Your task to perform on an android device: stop showing notifications on the lock screen Image 0: 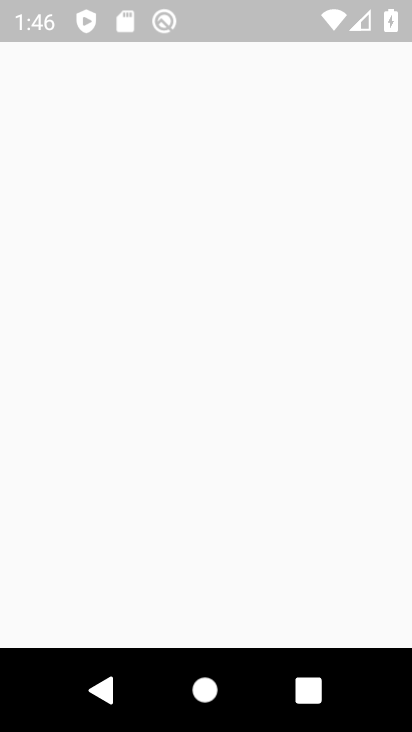
Step 0: press home button
Your task to perform on an android device: stop showing notifications on the lock screen Image 1: 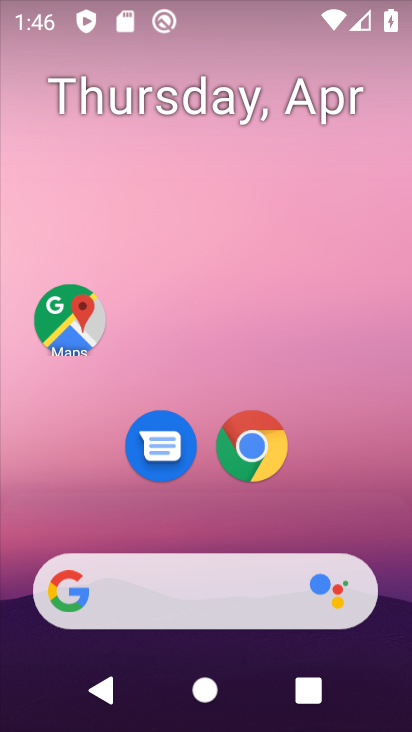
Step 1: drag from (211, 687) to (192, 214)
Your task to perform on an android device: stop showing notifications on the lock screen Image 2: 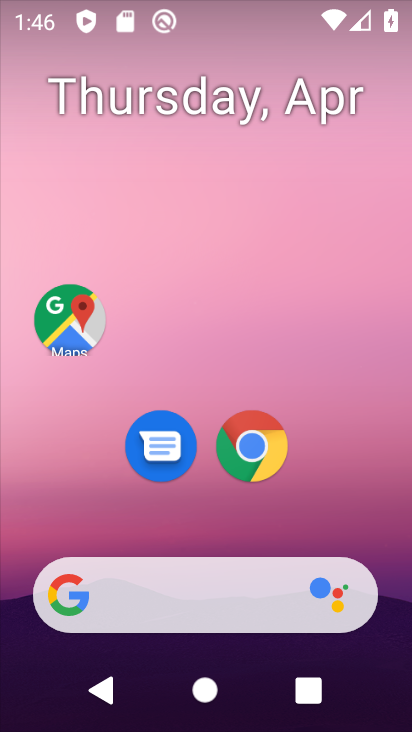
Step 2: drag from (208, 720) to (209, 133)
Your task to perform on an android device: stop showing notifications on the lock screen Image 3: 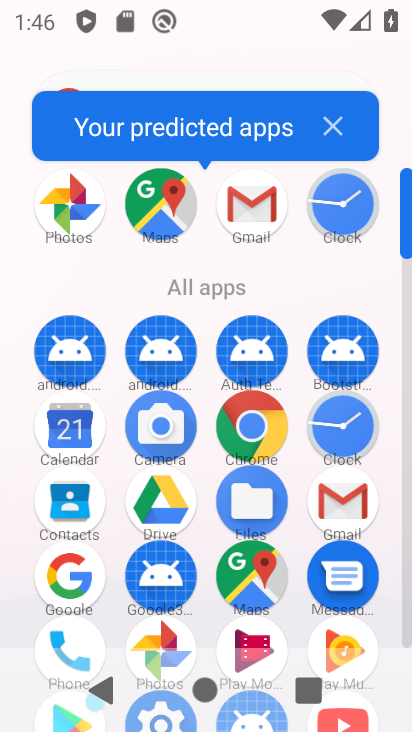
Step 3: drag from (206, 630) to (189, 255)
Your task to perform on an android device: stop showing notifications on the lock screen Image 4: 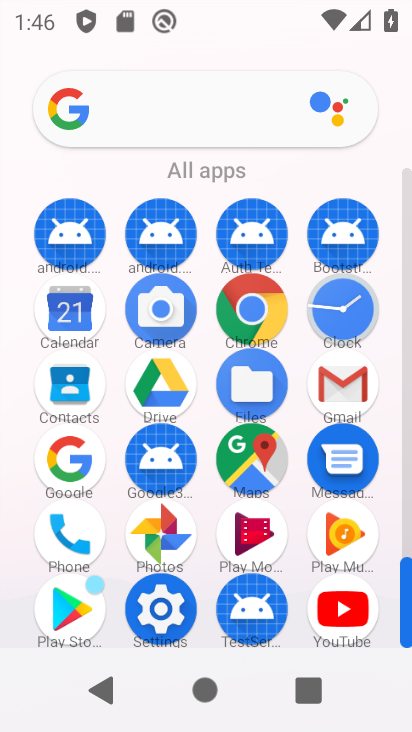
Step 4: click (162, 605)
Your task to perform on an android device: stop showing notifications on the lock screen Image 5: 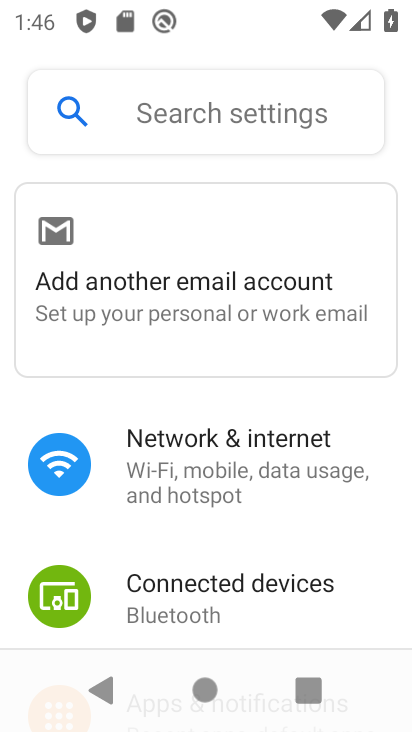
Step 5: drag from (229, 623) to (252, 263)
Your task to perform on an android device: stop showing notifications on the lock screen Image 6: 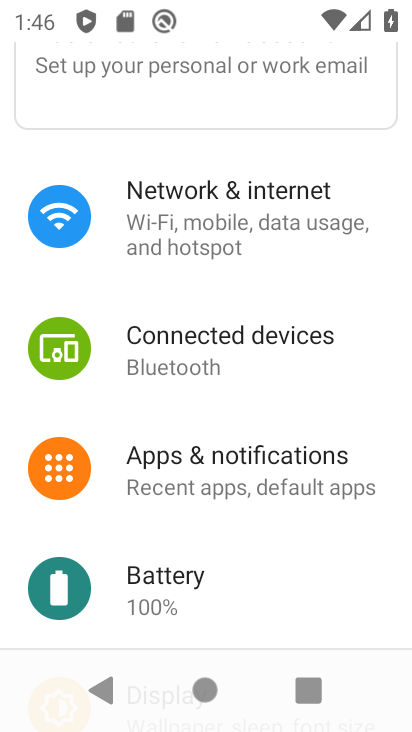
Step 6: click (226, 465)
Your task to perform on an android device: stop showing notifications on the lock screen Image 7: 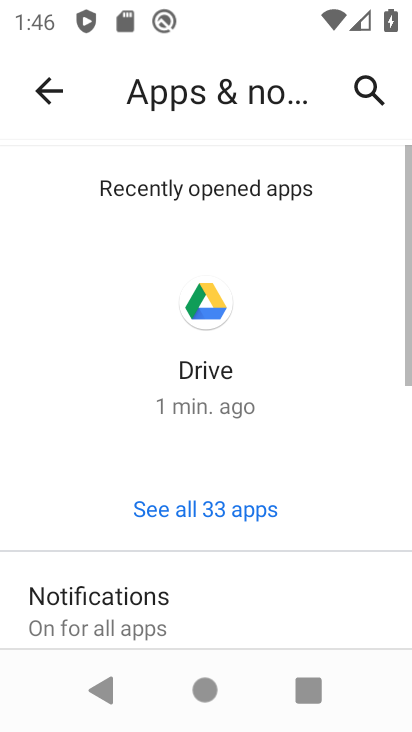
Step 7: drag from (232, 624) to (237, 253)
Your task to perform on an android device: stop showing notifications on the lock screen Image 8: 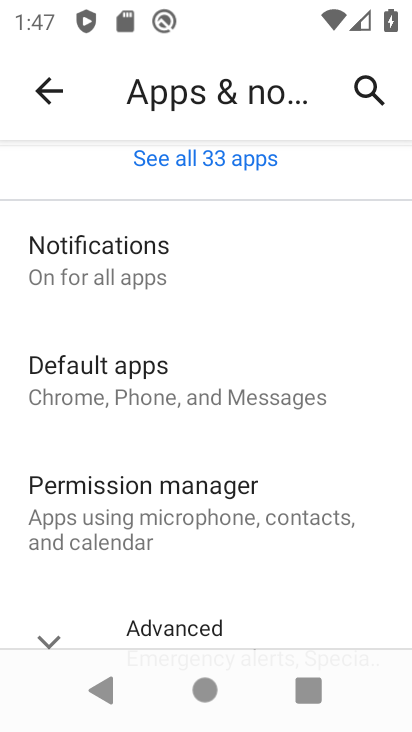
Step 8: click (93, 259)
Your task to perform on an android device: stop showing notifications on the lock screen Image 9: 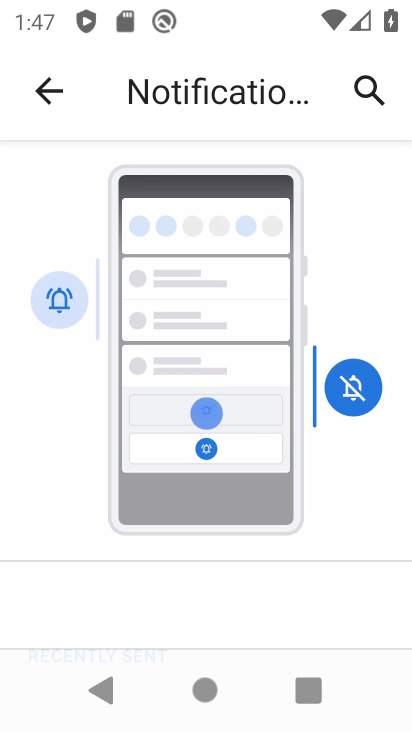
Step 9: drag from (200, 595) to (224, 260)
Your task to perform on an android device: stop showing notifications on the lock screen Image 10: 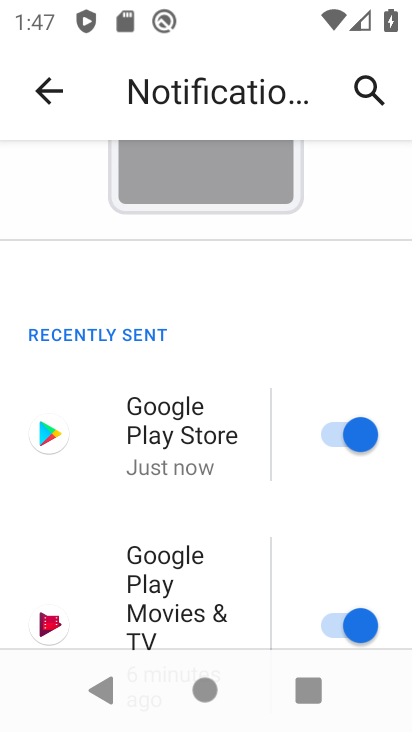
Step 10: drag from (230, 629) to (208, 277)
Your task to perform on an android device: stop showing notifications on the lock screen Image 11: 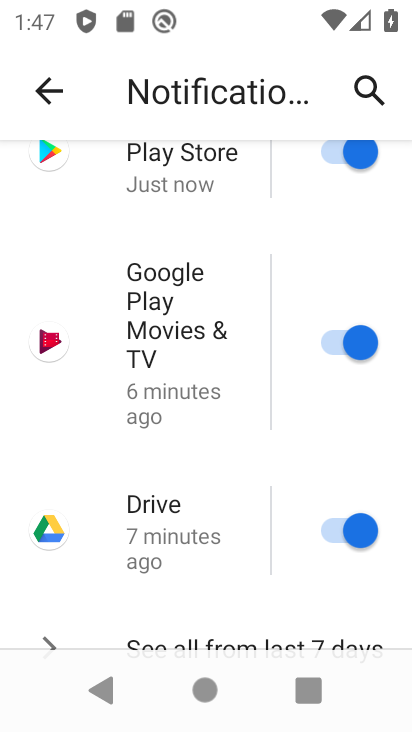
Step 11: drag from (228, 609) to (211, 295)
Your task to perform on an android device: stop showing notifications on the lock screen Image 12: 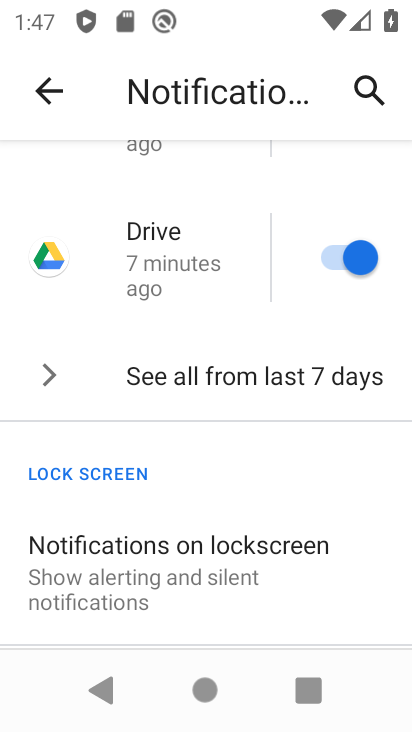
Step 12: drag from (176, 605) to (170, 420)
Your task to perform on an android device: stop showing notifications on the lock screen Image 13: 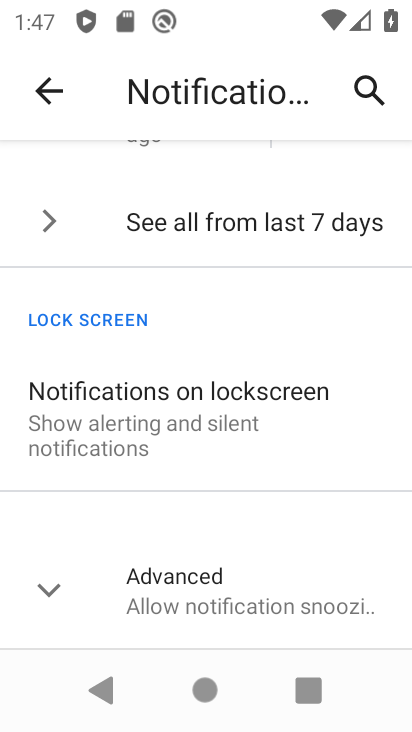
Step 13: click (181, 408)
Your task to perform on an android device: stop showing notifications on the lock screen Image 14: 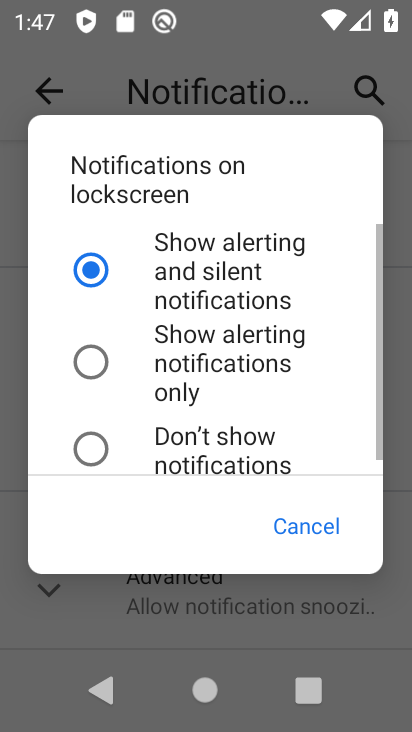
Step 14: click (85, 450)
Your task to perform on an android device: stop showing notifications on the lock screen Image 15: 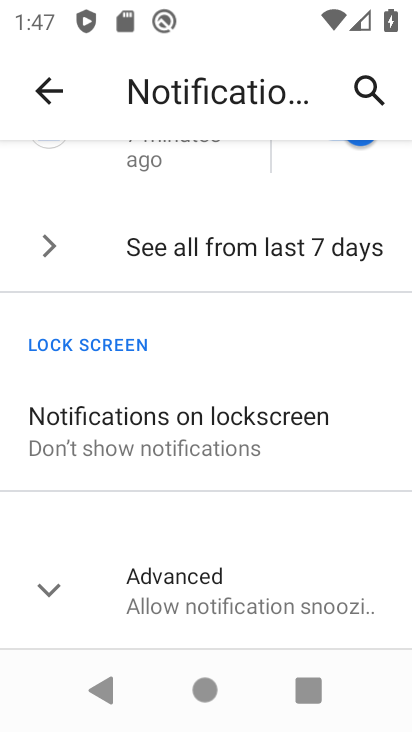
Step 15: task complete